Your task to perform on an android device: Go to Reddit.com Image 0: 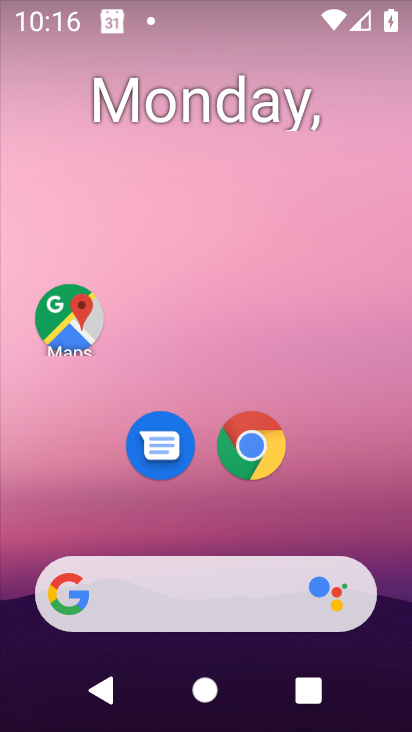
Step 0: click (238, 583)
Your task to perform on an android device: Go to Reddit.com Image 1: 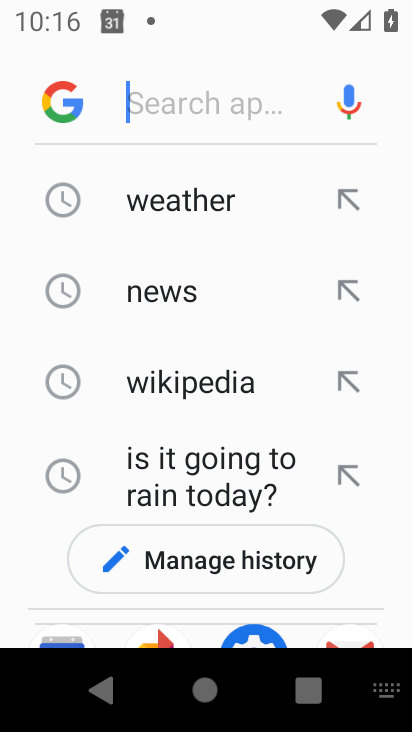
Step 1: type "reddit.com"
Your task to perform on an android device: Go to Reddit.com Image 2: 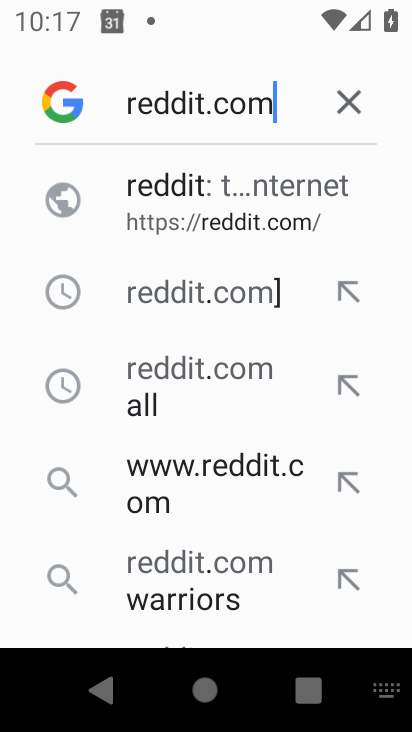
Step 2: click (291, 185)
Your task to perform on an android device: Go to Reddit.com Image 3: 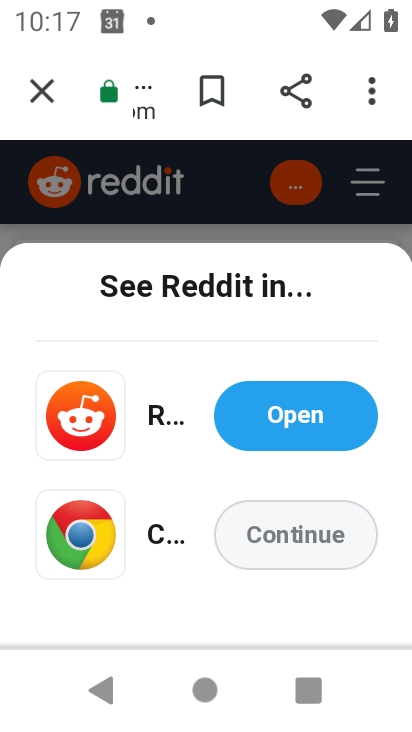
Step 3: task complete